Your task to perform on an android device: Open Android settings Image 0: 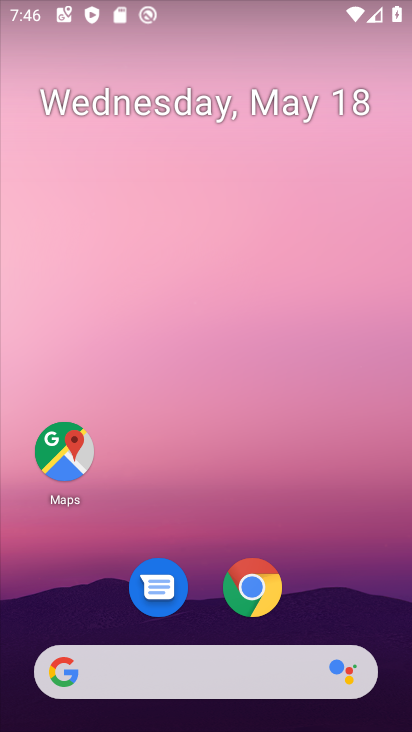
Step 0: drag from (203, 625) to (272, 132)
Your task to perform on an android device: Open Android settings Image 1: 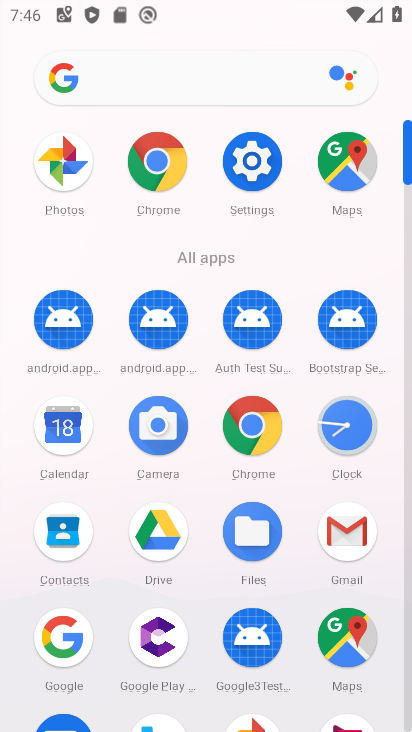
Step 1: click (242, 163)
Your task to perform on an android device: Open Android settings Image 2: 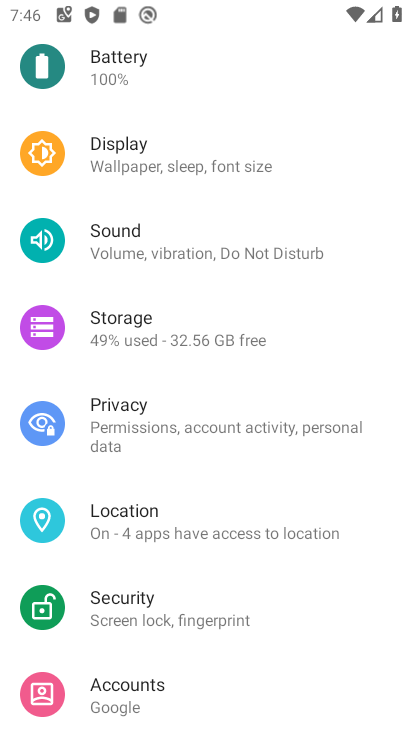
Step 2: task complete